Your task to perform on an android device: Go to Android settings Image 0: 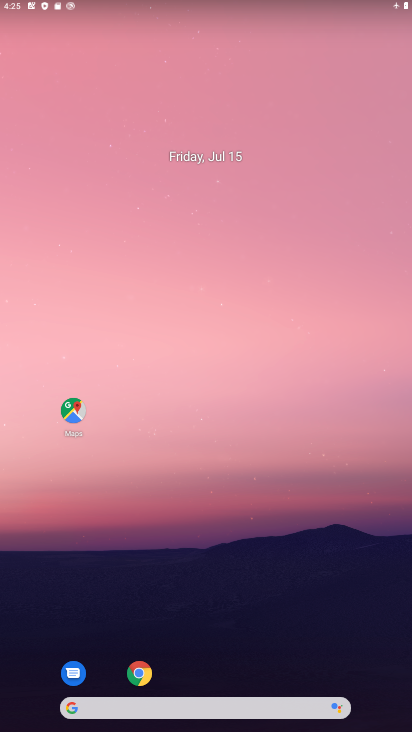
Step 0: drag from (274, 556) to (274, 229)
Your task to perform on an android device: Go to Android settings Image 1: 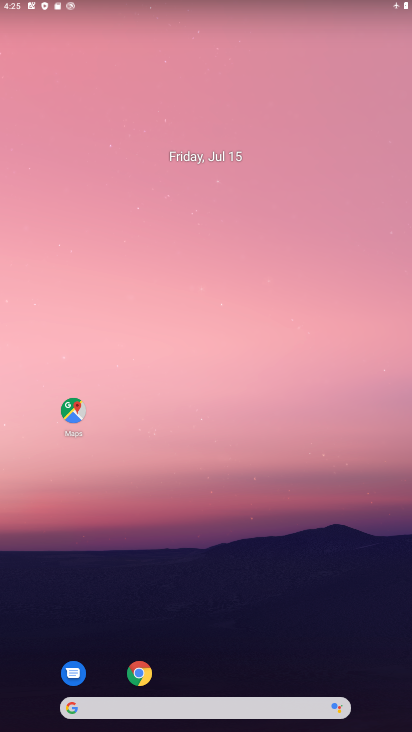
Step 1: drag from (245, 605) to (245, 104)
Your task to perform on an android device: Go to Android settings Image 2: 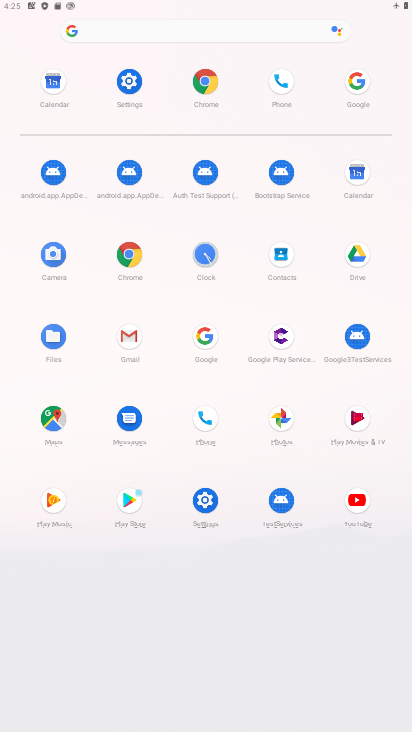
Step 2: click (137, 78)
Your task to perform on an android device: Go to Android settings Image 3: 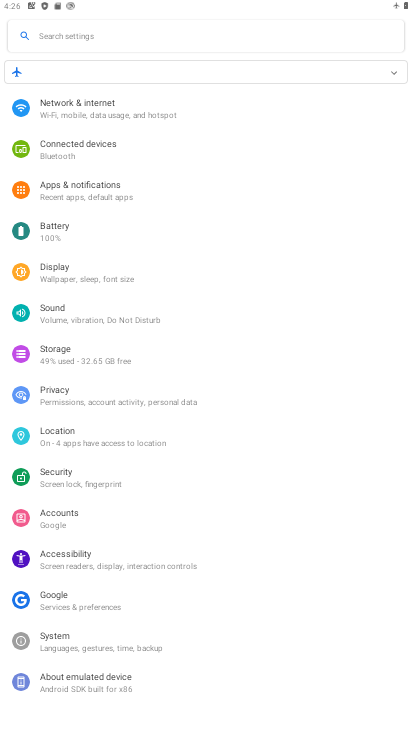
Step 3: task complete